Your task to perform on an android device: see tabs open on other devices in the chrome app Image 0: 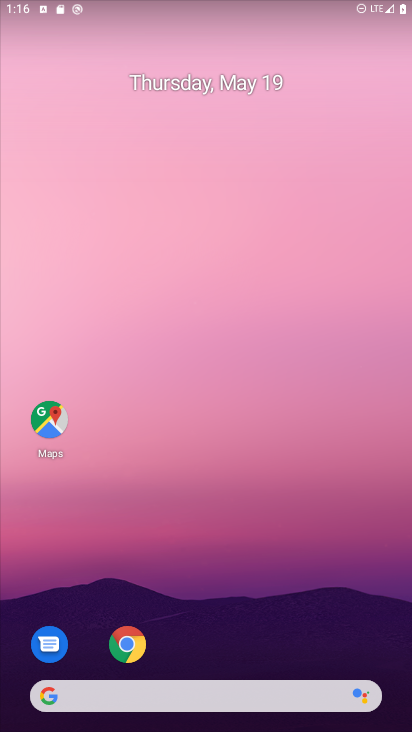
Step 0: drag from (355, 630) to (204, 70)
Your task to perform on an android device: see tabs open on other devices in the chrome app Image 1: 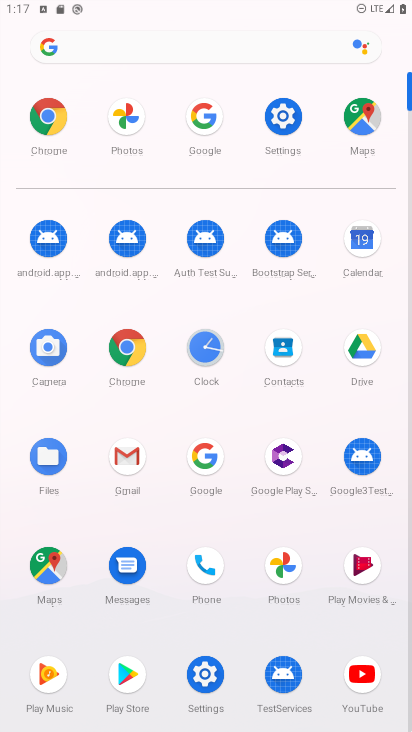
Step 1: click (125, 360)
Your task to perform on an android device: see tabs open on other devices in the chrome app Image 2: 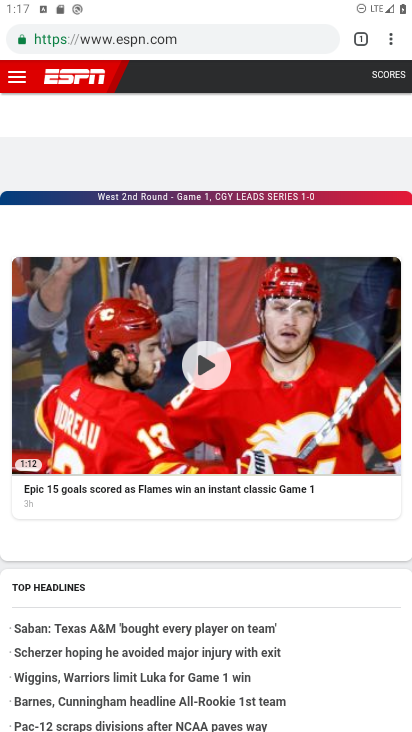
Step 2: task complete